Your task to perform on an android device: turn on airplane mode Image 0: 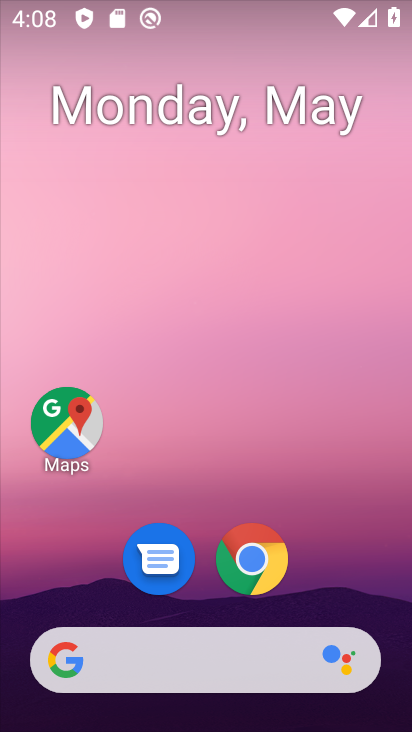
Step 0: drag from (237, 537) to (262, 94)
Your task to perform on an android device: turn on airplane mode Image 1: 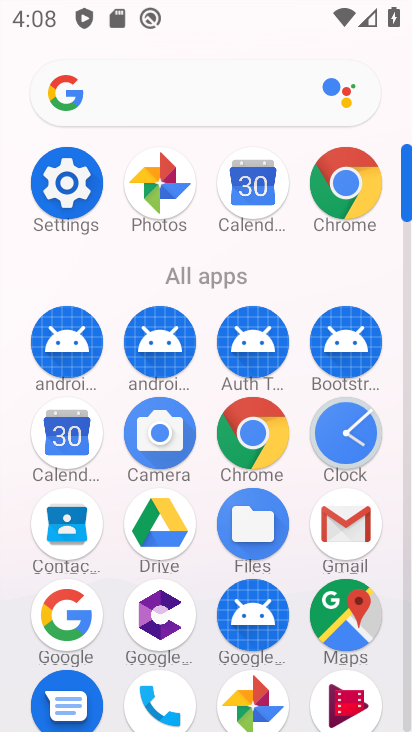
Step 1: click (40, 161)
Your task to perform on an android device: turn on airplane mode Image 2: 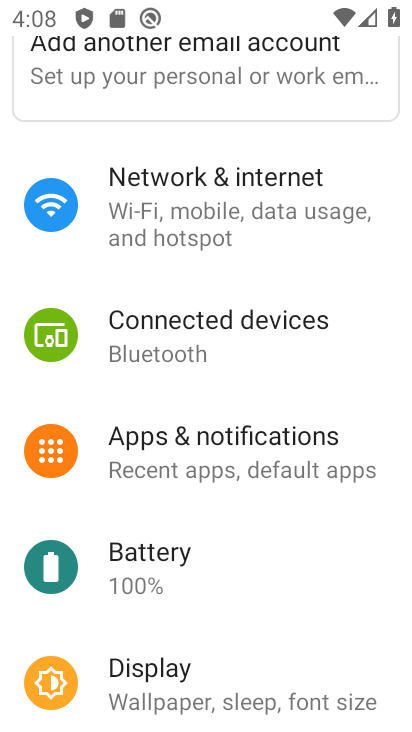
Step 2: click (248, 188)
Your task to perform on an android device: turn on airplane mode Image 3: 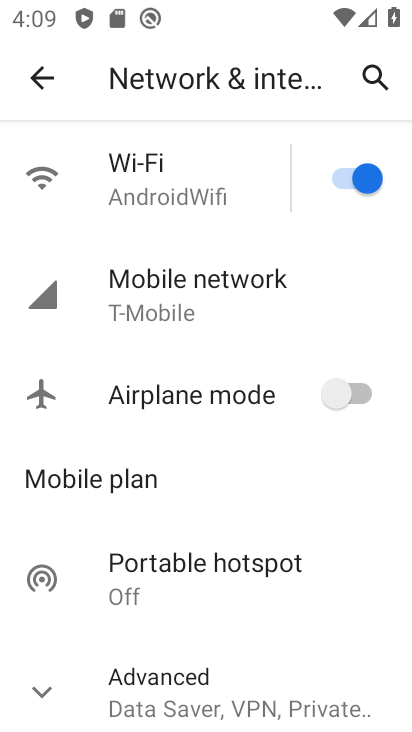
Step 3: click (349, 394)
Your task to perform on an android device: turn on airplane mode Image 4: 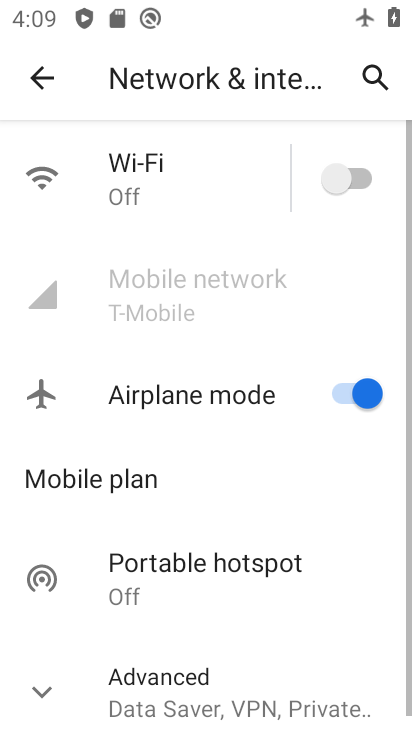
Step 4: task complete